Your task to perform on an android device: toggle location history Image 0: 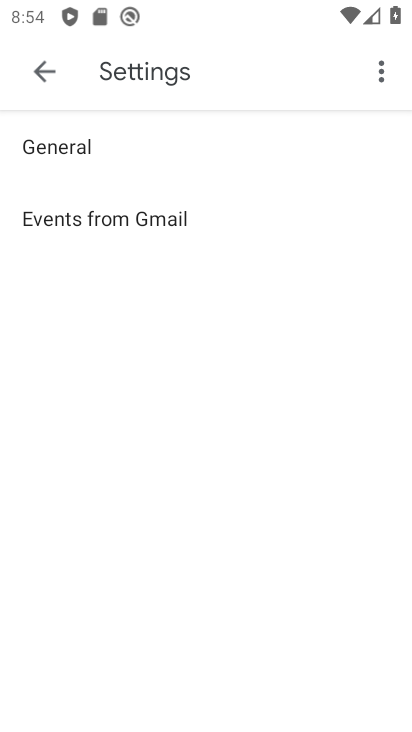
Step 0: press back button
Your task to perform on an android device: toggle location history Image 1: 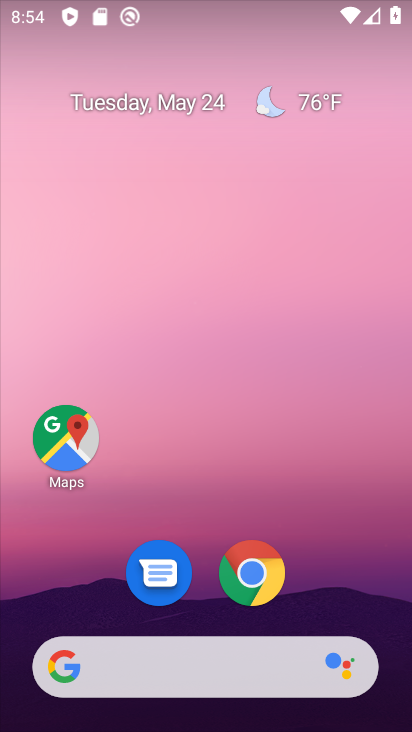
Step 1: drag from (73, 585) to (283, 194)
Your task to perform on an android device: toggle location history Image 2: 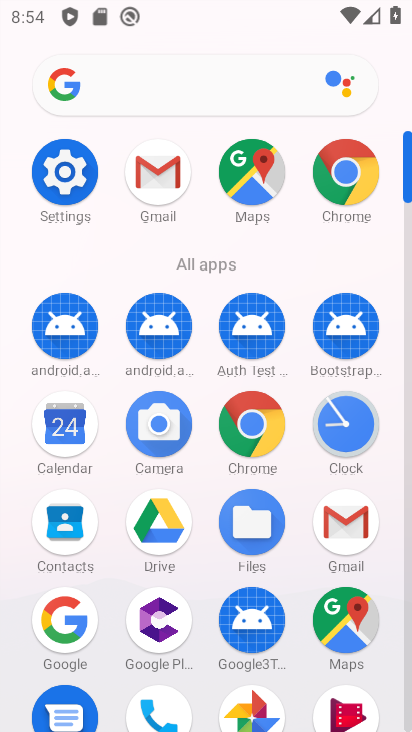
Step 2: drag from (159, 627) to (269, 282)
Your task to perform on an android device: toggle location history Image 3: 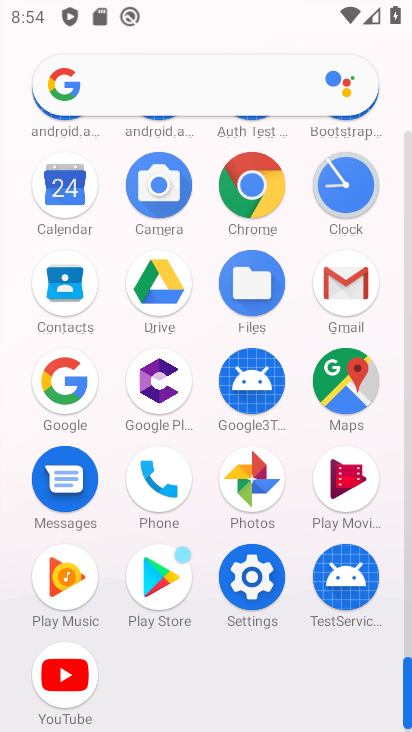
Step 3: click (254, 571)
Your task to perform on an android device: toggle location history Image 4: 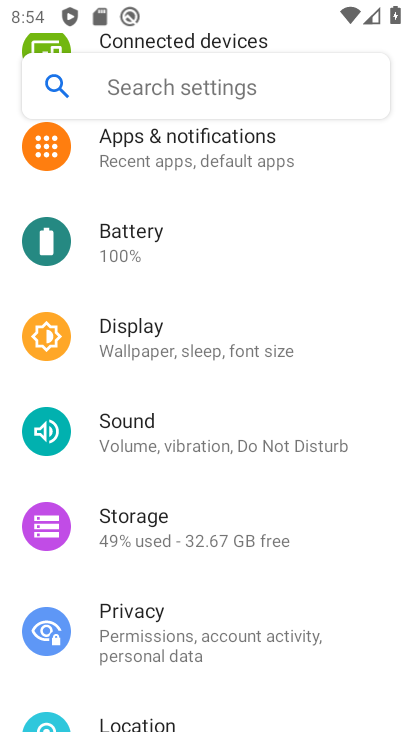
Step 4: drag from (188, 679) to (256, 332)
Your task to perform on an android device: toggle location history Image 5: 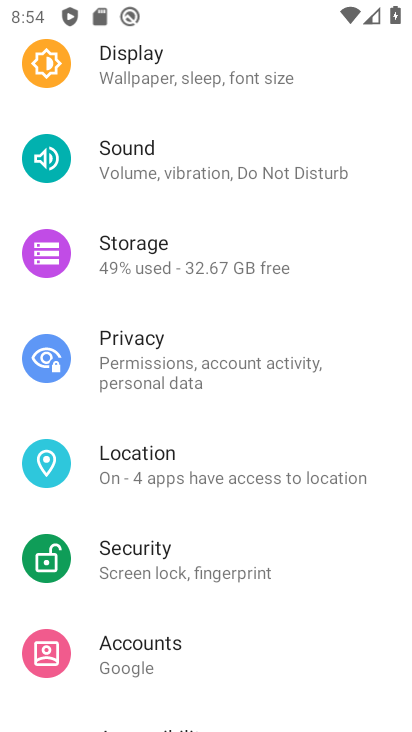
Step 5: click (160, 452)
Your task to perform on an android device: toggle location history Image 6: 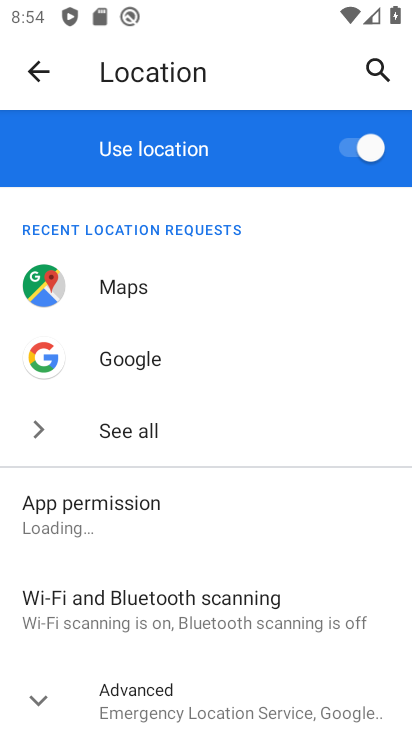
Step 6: drag from (196, 677) to (285, 422)
Your task to perform on an android device: toggle location history Image 7: 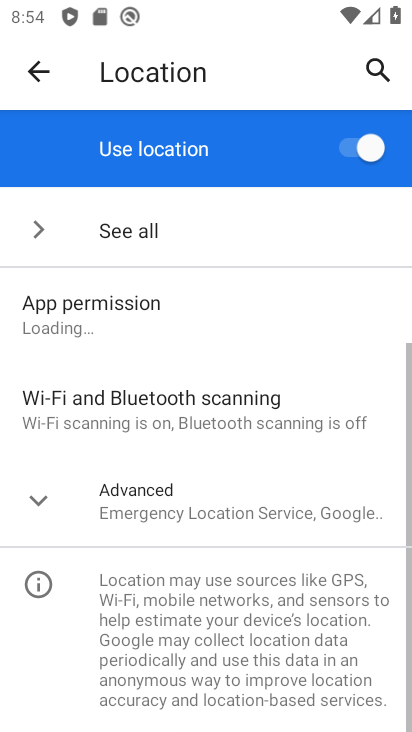
Step 7: click (177, 496)
Your task to perform on an android device: toggle location history Image 8: 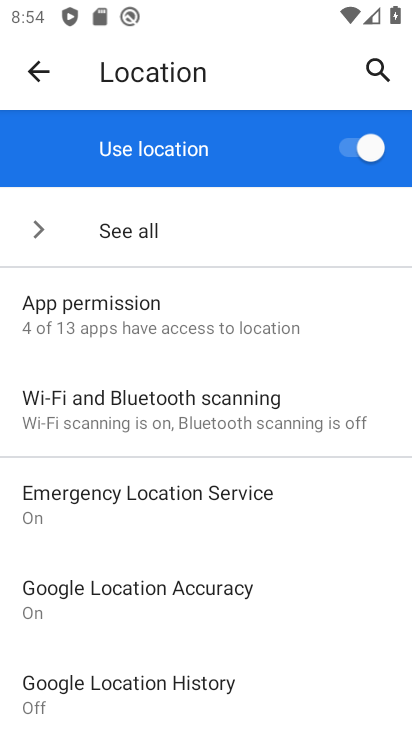
Step 8: drag from (234, 693) to (274, 467)
Your task to perform on an android device: toggle location history Image 9: 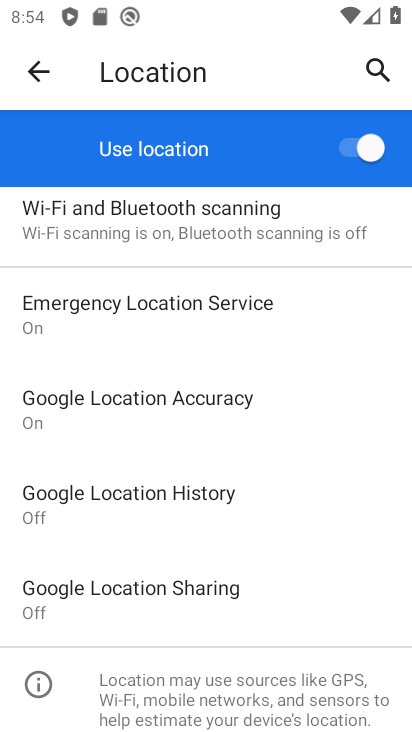
Step 9: click (231, 508)
Your task to perform on an android device: toggle location history Image 10: 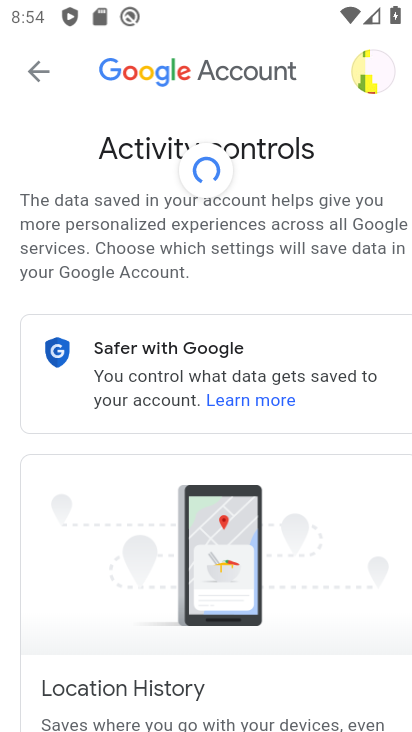
Step 10: drag from (290, 678) to (310, 303)
Your task to perform on an android device: toggle location history Image 11: 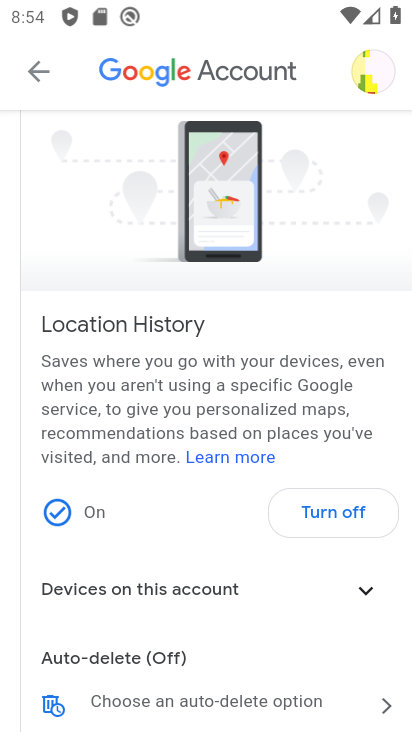
Step 11: click (334, 512)
Your task to perform on an android device: toggle location history Image 12: 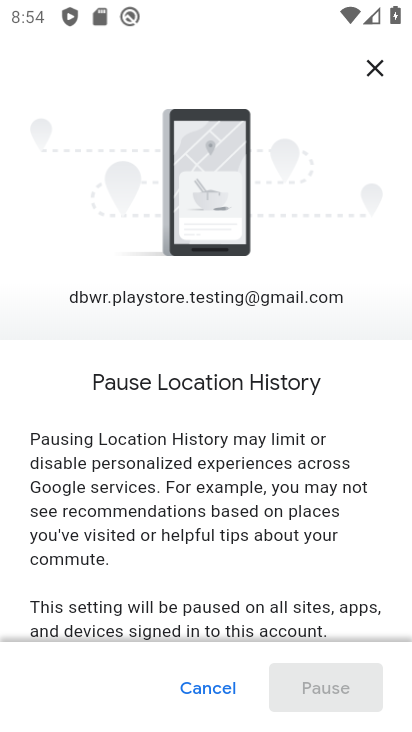
Step 12: drag from (271, 595) to (348, 199)
Your task to perform on an android device: toggle location history Image 13: 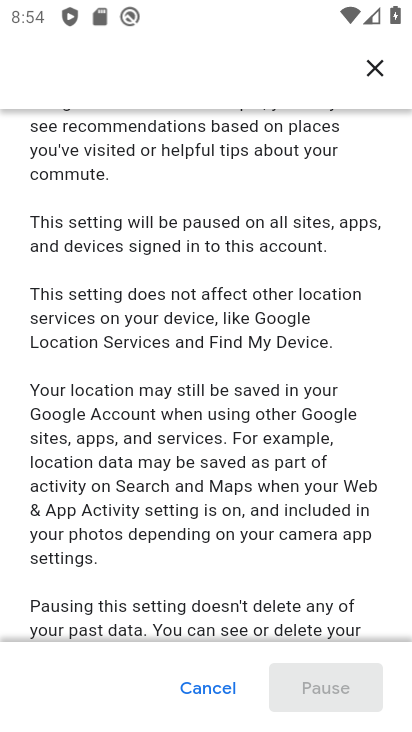
Step 13: drag from (300, 613) to (361, 219)
Your task to perform on an android device: toggle location history Image 14: 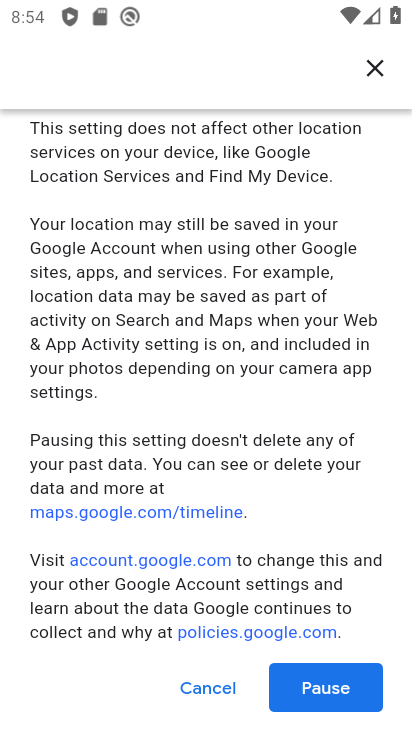
Step 14: click (326, 700)
Your task to perform on an android device: toggle location history Image 15: 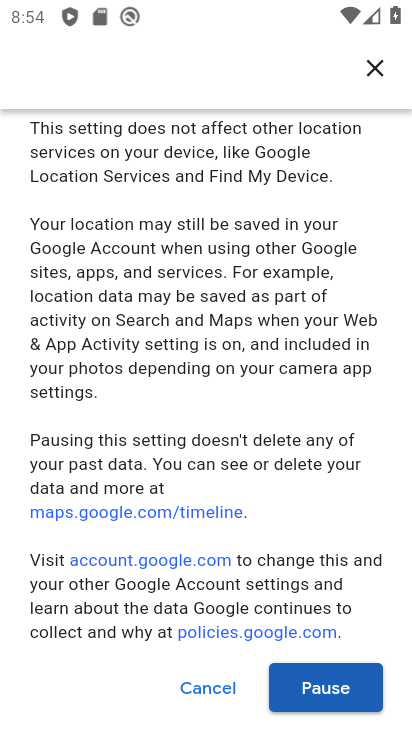
Step 15: click (351, 700)
Your task to perform on an android device: toggle location history Image 16: 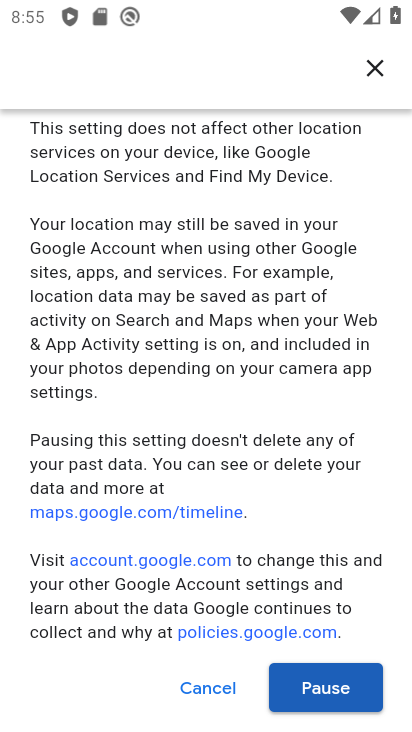
Step 16: click (343, 704)
Your task to perform on an android device: toggle location history Image 17: 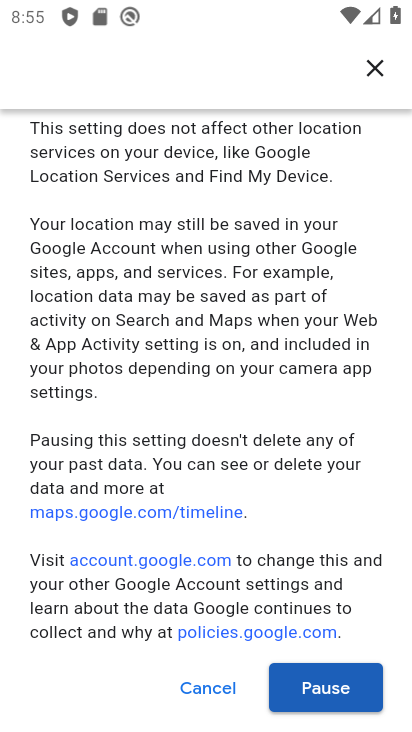
Step 17: click (348, 696)
Your task to perform on an android device: toggle location history Image 18: 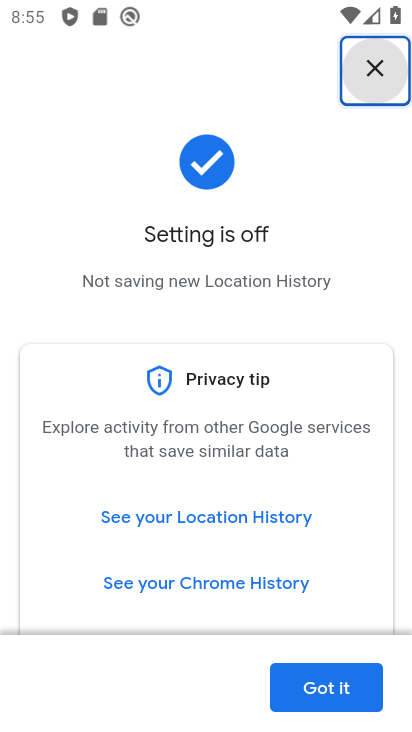
Step 18: click (349, 693)
Your task to perform on an android device: toggle location history Image 19: 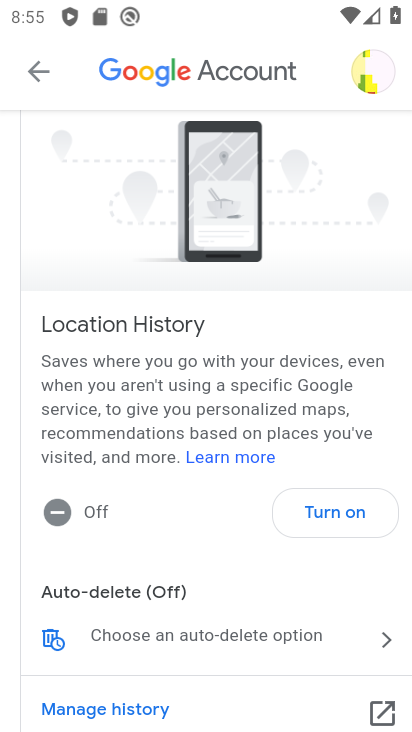
Step 19: task complete